Your task to perform on an android device: toggle javascript in the chrome app Image 0: 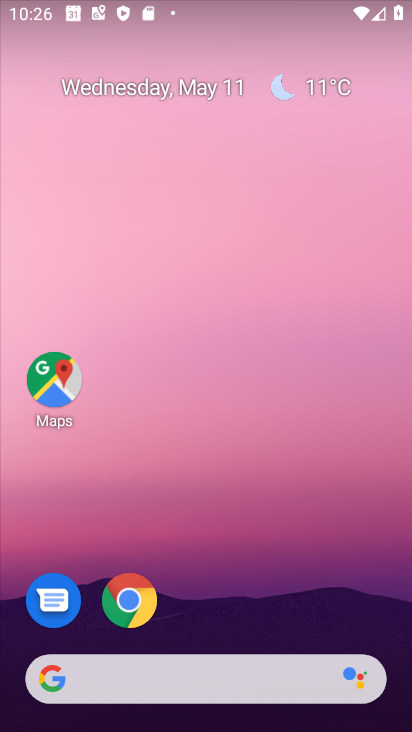
Step 0: click (124, 604)
Your task to perform on an android device: toggle javascript in the chrome app Image 1: 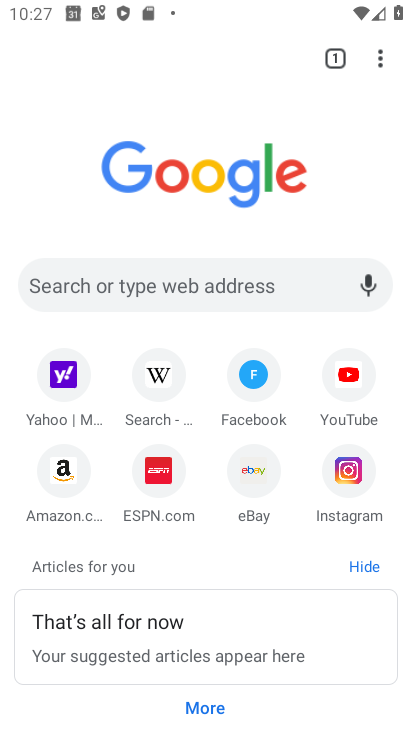
Step 1: click (374, 66)
Your task to perform on an android device: toggle javascript in the chrome app Image 2: 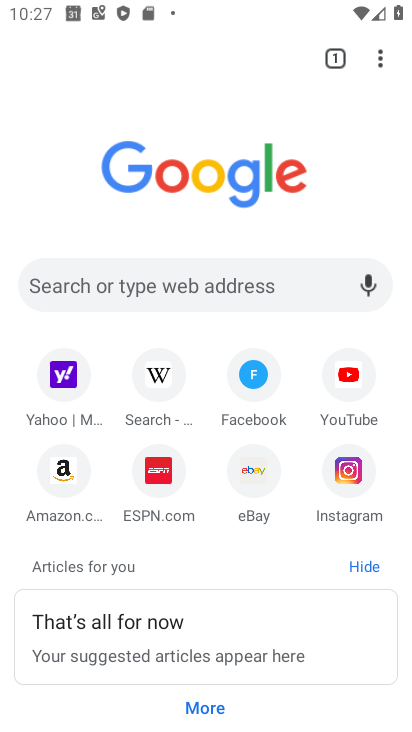
Step 2: click (370, 55)
Your task to perform on an android device: toggle javascript in the chrome app Image 3: 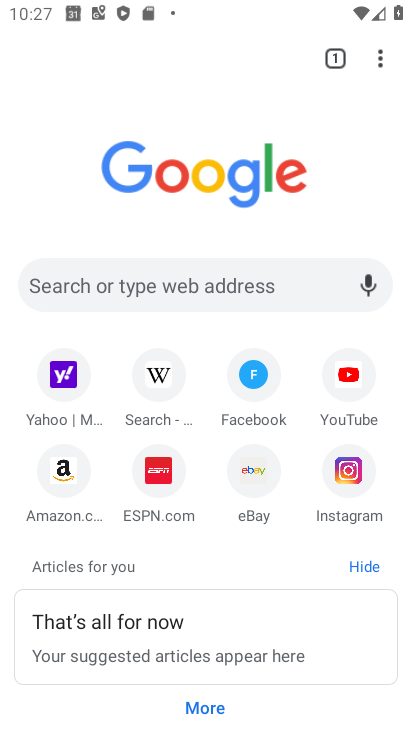
Step 3: click (376, 54)
Your task to perform on an android device: toggle javascript in the chrome app Image 4: 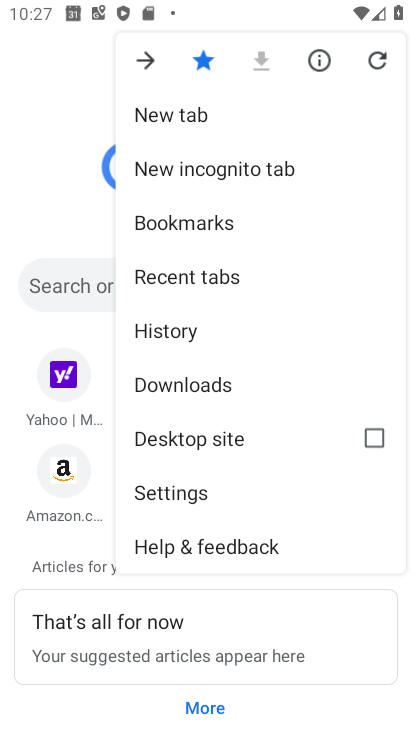
Step 4: click (181, 481)
Your task to perform on an android device: toggle javascript in the chrome app Image 5: 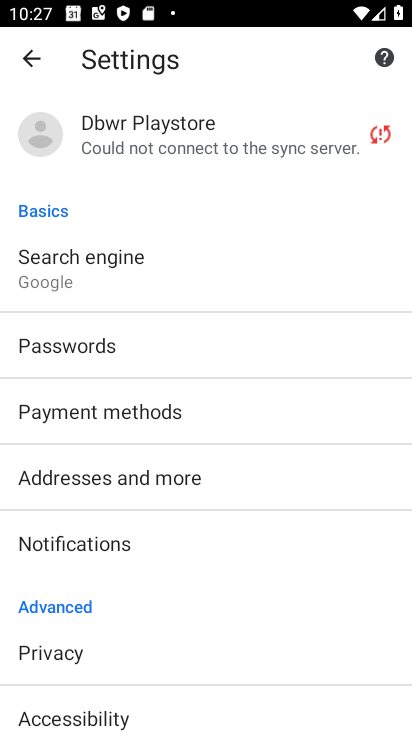
Step 5: drag from (215, 570) to (229, 181)
Your task to perform on an android device: toggle javascript in the chrome app Image 6: 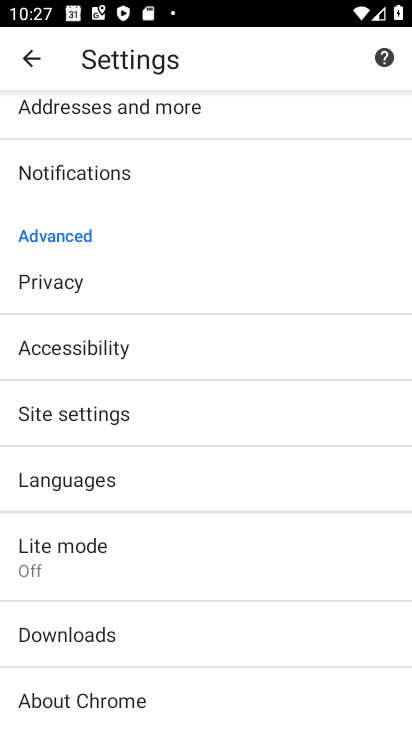
Step 6: drag from (192, 539) to (188, 199)
Your task to perform on an android device: toggle javascript in the chrome app Image 7: 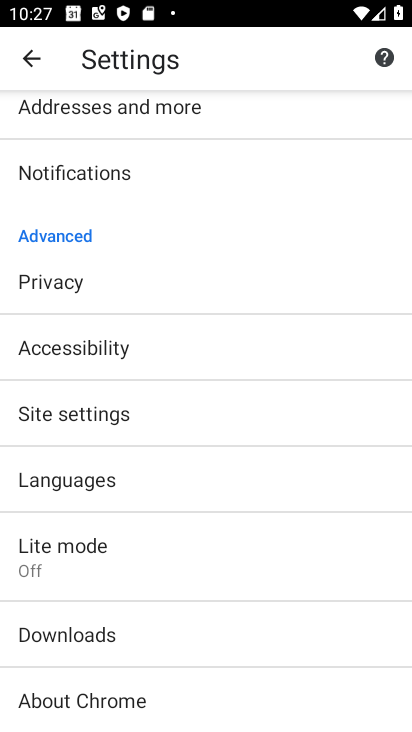
Step 7: click (100, 404)
Your task to perform on an android device: toggle javascript in the chrome app Image 8: 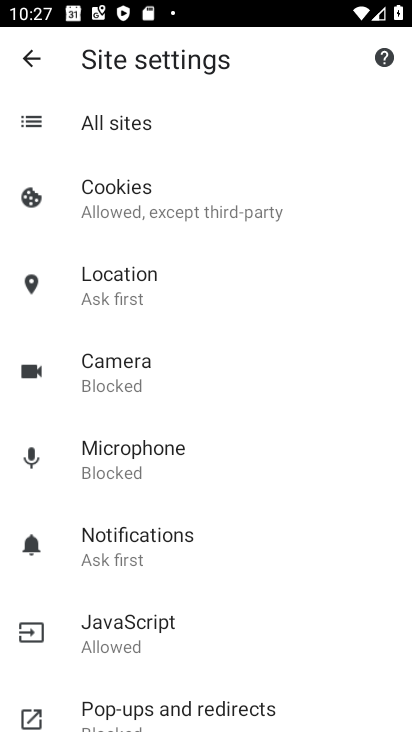
Step 8: click (178, 616)
Your task to perform on an android device: toggle javascript in the chrome app Image 9: 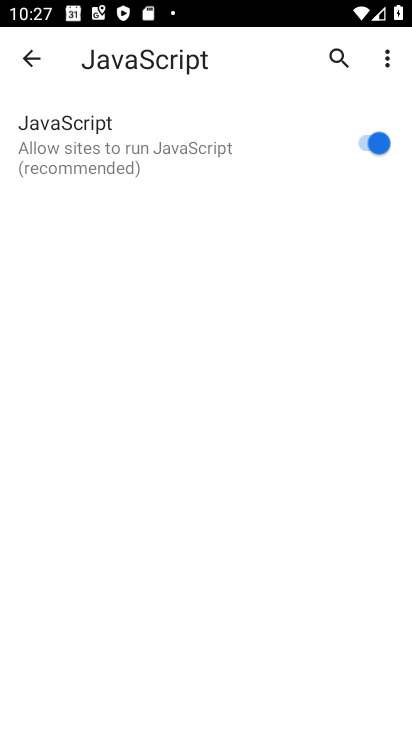
Step 9: task complete